Your task to perform on an android device: turn off translation in the chrome app Image 0: 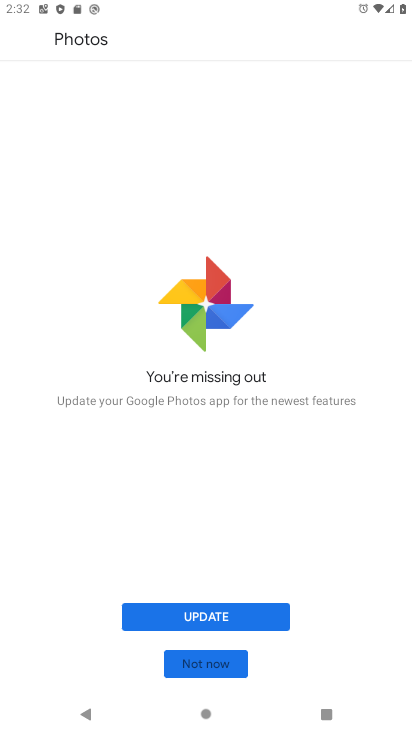
Step 0: press home button
Your task to perform on an android device: turn off translation in the chrome app Image 1: 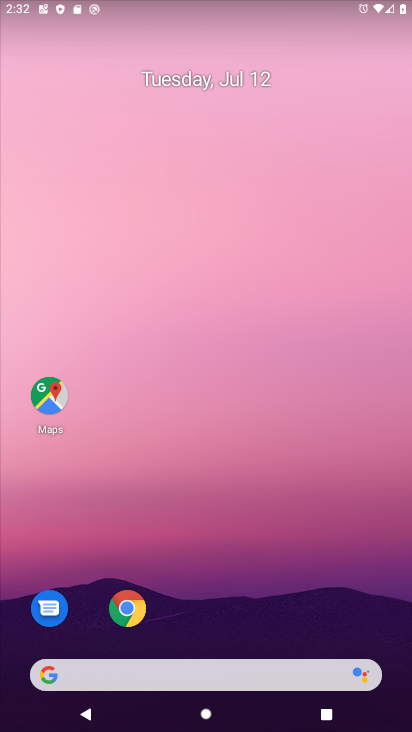
Step 1: drag from (287, 551) to (184, 152)
Your task to perform on an android device: turn off translation in the chrome app Image 2: 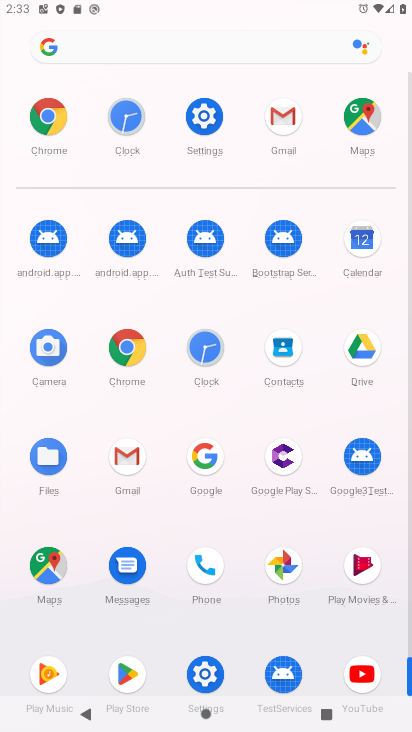
Step 2: click (127, 344)
Your task to perform on an android device: turn off translation in the chrome app Image 3: 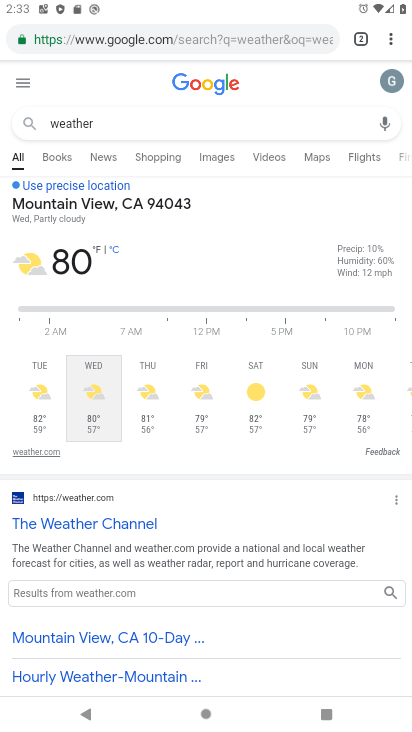
Step 3: drag from (391, 31) to (252, 480)
Your task to perform on an android device: turn off translation in the chrome app Image 4: 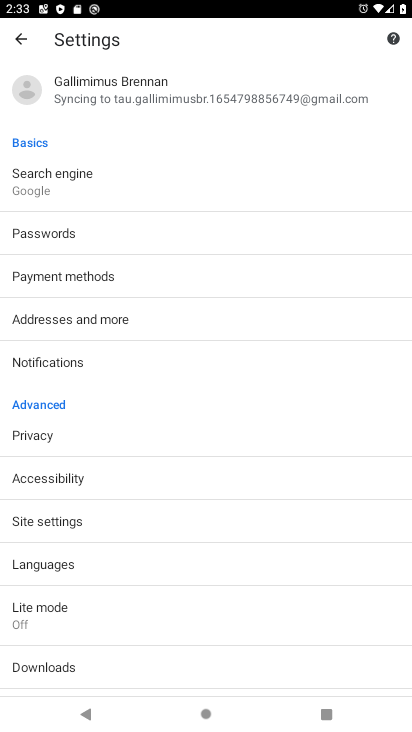
Step 4: click (69, 562)
Your task to perform on an android device: turn off translation in the chrome app Image 5: 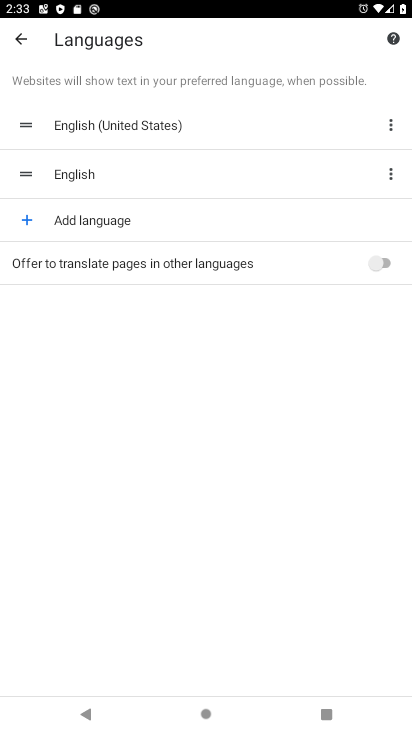
Step 5: task complete